Your task to perform on an android device: find which apps use the phone's location Image 0: 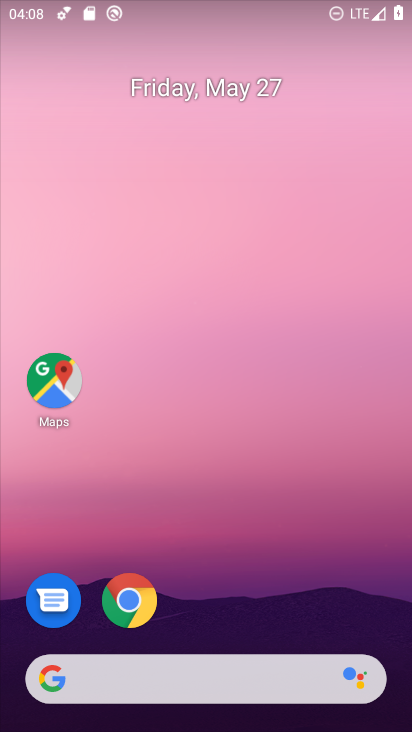
Step 0: drag from (249, 719) to (224, 144)
Your task to perform on an android device: find which apps use the phone's location Image 1: 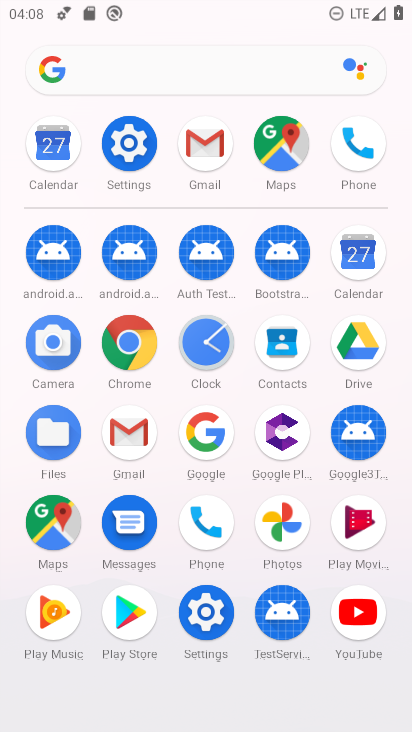
Step 1: click (202, 601)
Your task to perform on an android device: find which apps use the phone's location Image 2: 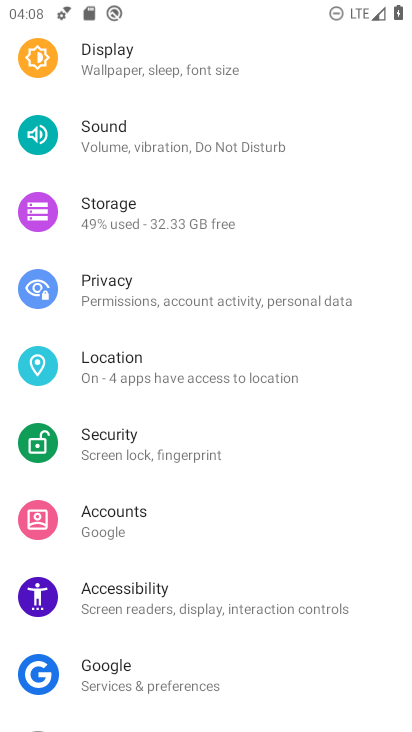
Step 2: click (107, 369)
Your task to perform on an android device: find which apps use the phone's location Image 3: 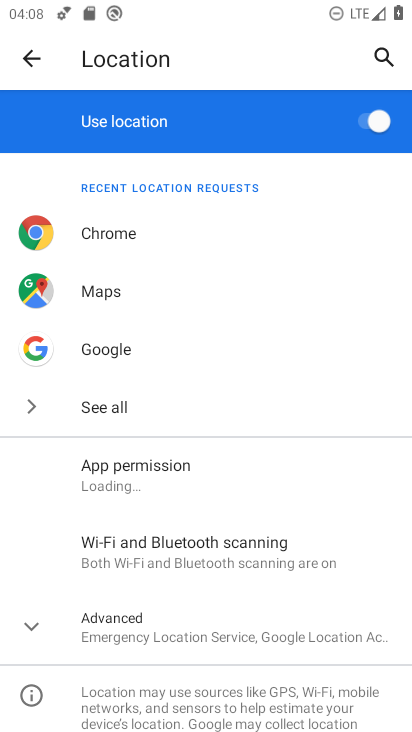
Step 3: click (116, 460)
Your task to perform on an android device: find which apps use the phone's location Image 4: 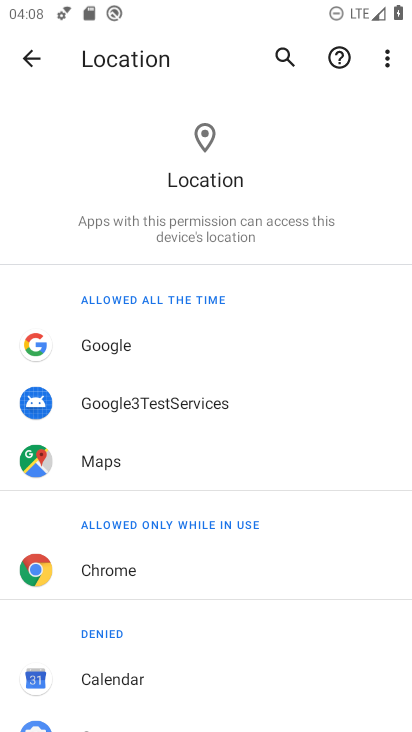
Step 4: task complete